Your task to perform on an android device: open app "Messages" Image 0: 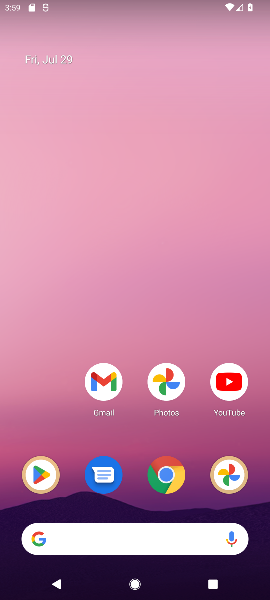
Step 0: click (44, 468)
Your task to perform on an android device: open app "Messages" Image 1: 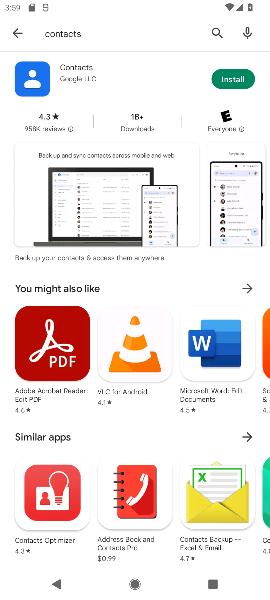
Step 1: click (12, 35)
Your task to perform on an android device: open app "Messages" Image 2: 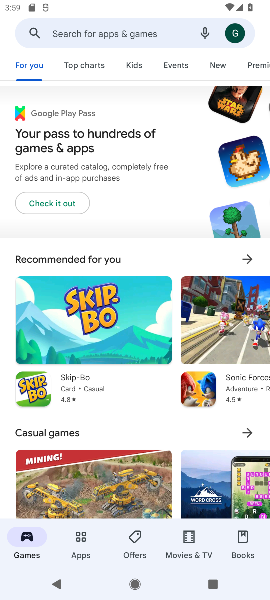
Step 2: press home button
Your task to perform on an android device: open app "Messages" Image 3: 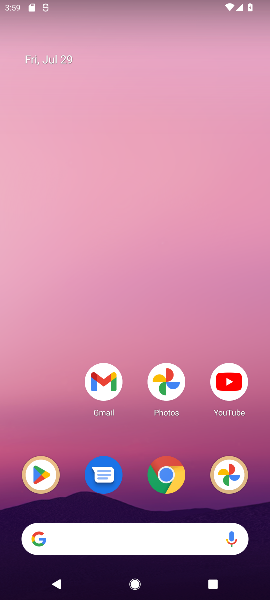
Step 3: click (114, 465)
Your task to perform on an android device: open app "Messages" Image 4: 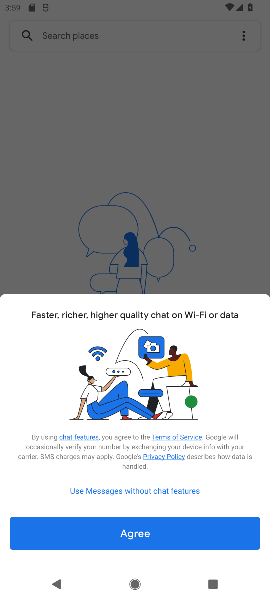
Step 4: click (114, 529)
Your task to perform on an android device: open app "Messages" Image 5: 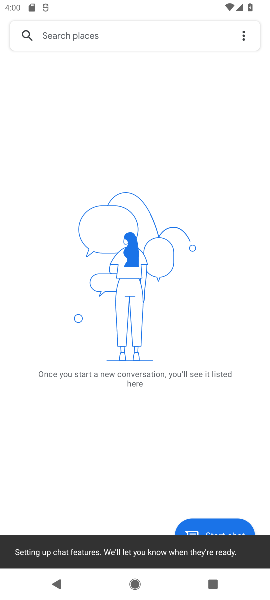
Step 5: task complete